Your task to perform on an android device: Show me popular videos on Youtube Image 0: 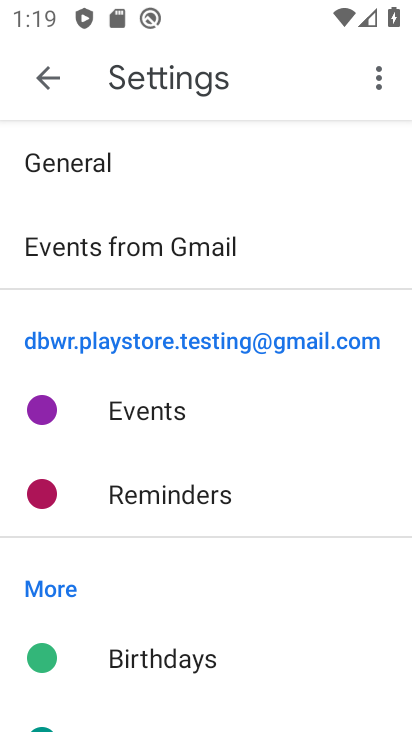
Step 0: press home button
Your task to perform on an android device: Show me popular videos on Youtube Image 1: 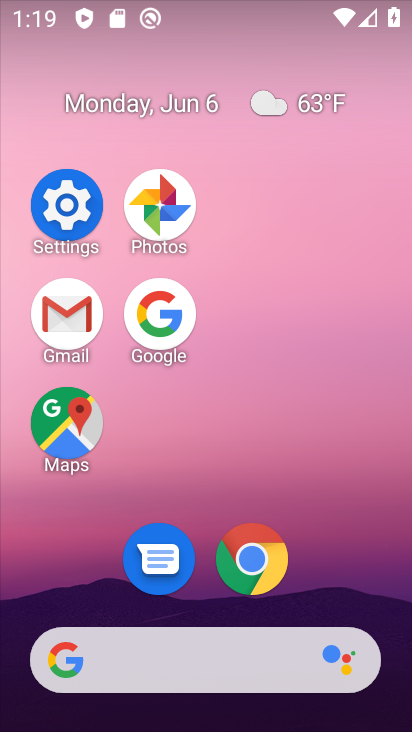
Step 1: drag from (327, 578) to (351, 246)
Your task to perform on an android device: Show me popular videos on Youtube Image 2: 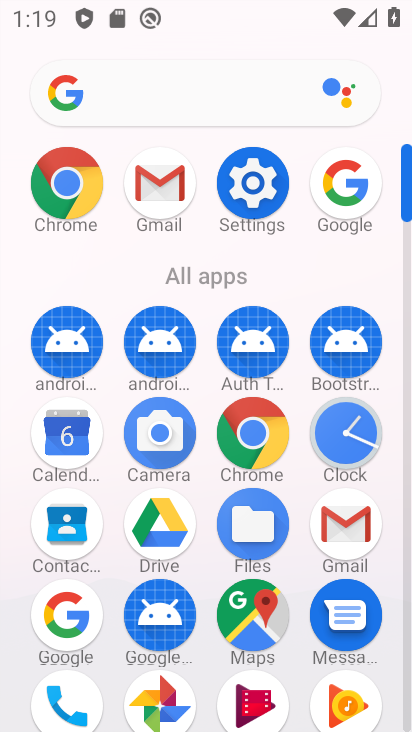
Step 2: drag from (246, 554) to (258, 234)
Your task to perform on an android device: Show me popular videos on Youtube Image 3: 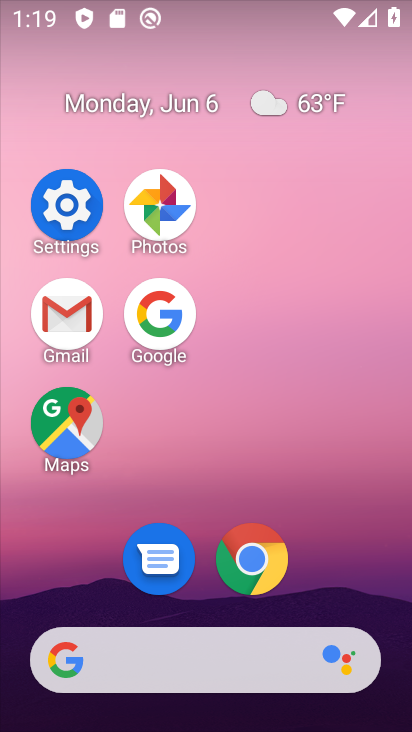
Step 3: drag from (308, 562) to (353, 109)
Your task to perform on an android device: Show me popular videos on Youtube Image 4: 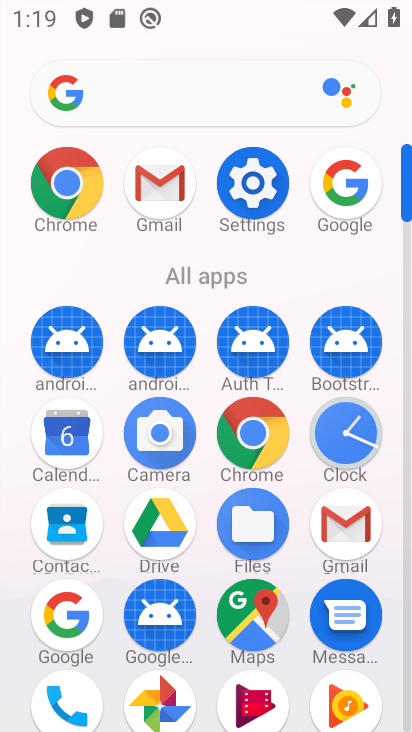
Step 4: drag from (324, 535) to (336, 188)
Your task to perform on an android device: Show me popular videos on Youtube Image 5: 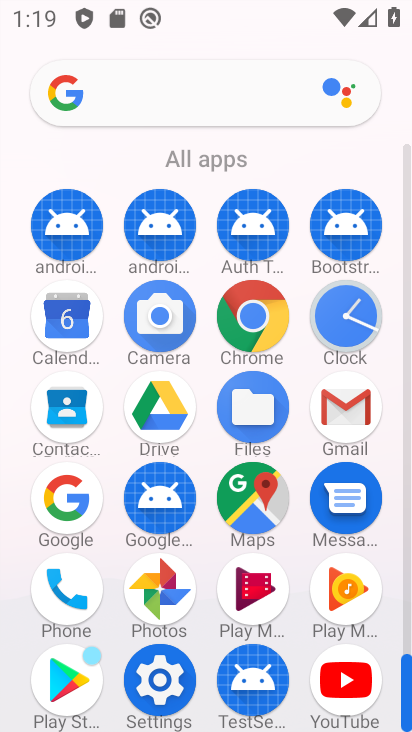
Step 5: click (347, 682)
Your task to perform on an android device: Show me popular videos on Youtube Image 6: 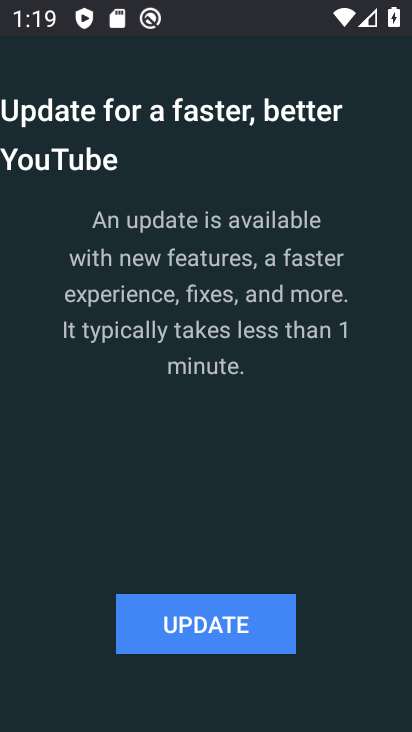
Step 6: click (170, 644)
Your task to perform on an android device: Show me popular videos on Youtube Image 7: 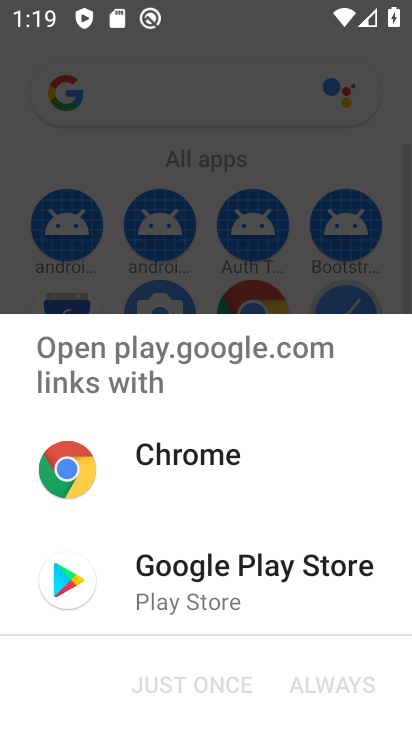
Step 7: click (245, 571)
Your task to perform on an android device: Show me popular videos on Youtube Image 8: 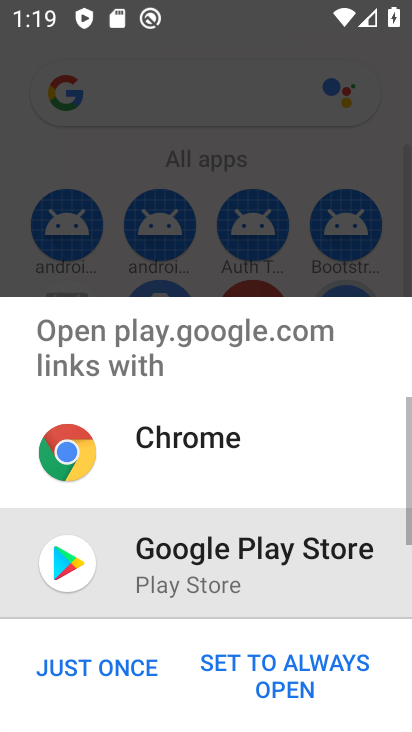
Step 8: click (341, 566)
Your task to perform on an android device: Show me popular videos on Youtube Image 9: 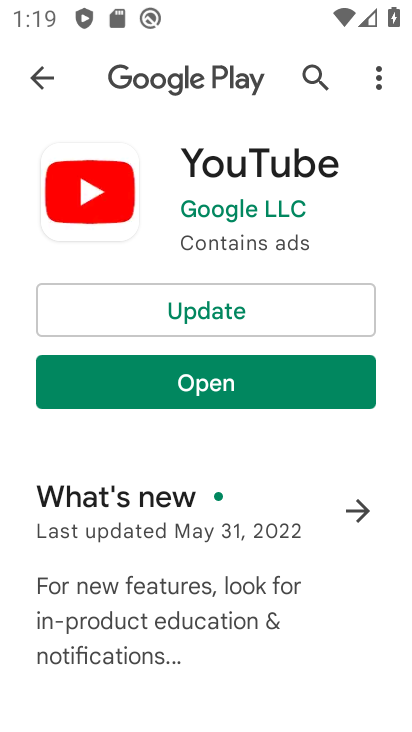
Step 9: click (248, 322)
Your task to perform on an android device: Show me popular videos on Youtube Image 10: 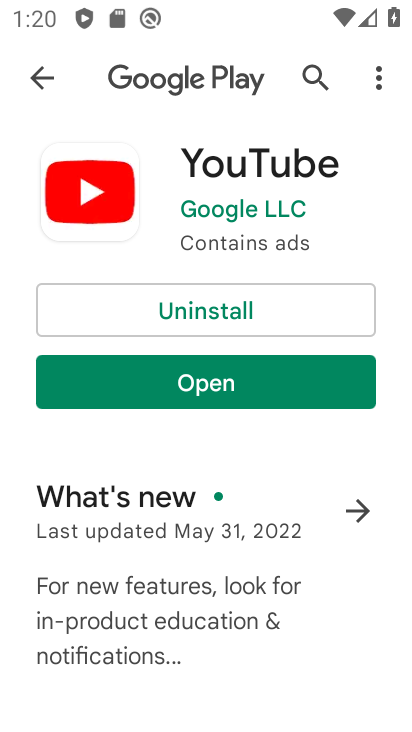
Step 10: click (291, 382)
Your task to perform on an android device: Show me popular videos on Youtube Image 11: 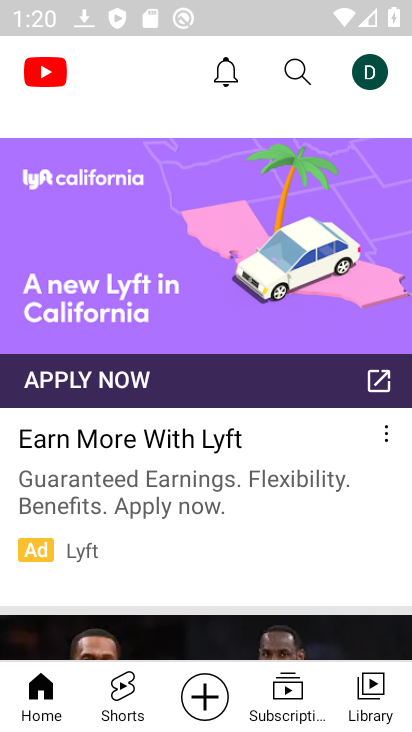
Step 11: task complete